Your task to perform on an android device: see tabs open on other devices in the chrome app Image 0: 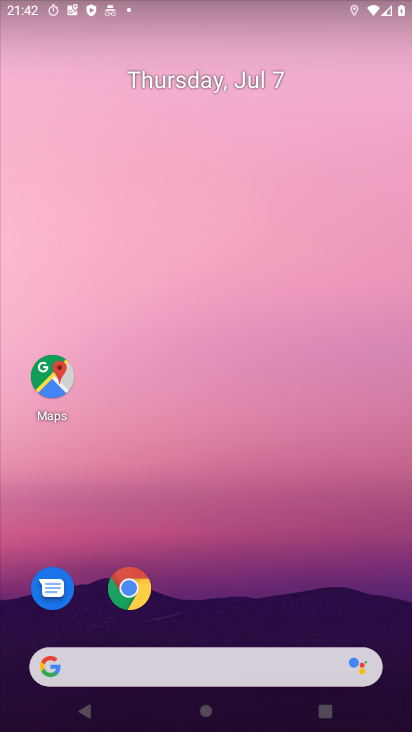
Step 0: drag from (259, 651) to (109, 237)
Your task to perform on an android device: see tabs open on other devices in the chrome app Image 1: 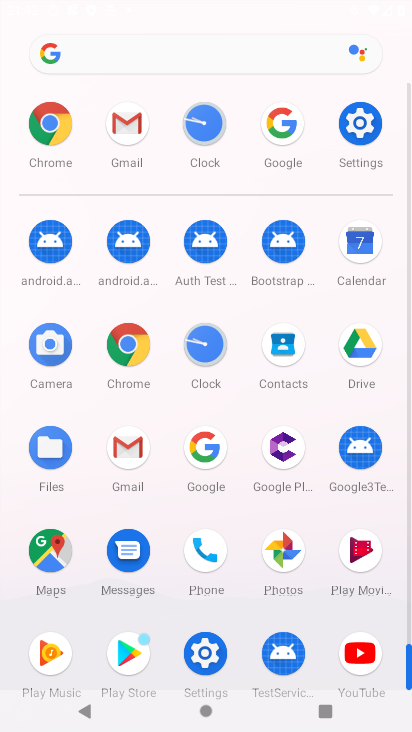
Step 1: click (53, 122)
Your task to perform on an android device: see tabs open on other devices in the chrome app Image 2: 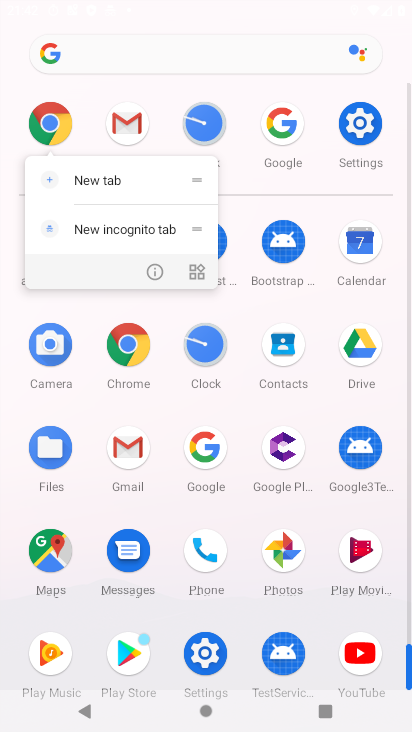
Step 2: click (129, 366)
Your task to perform on an android device: see tabs open on other devices in the chrome app Image 3: 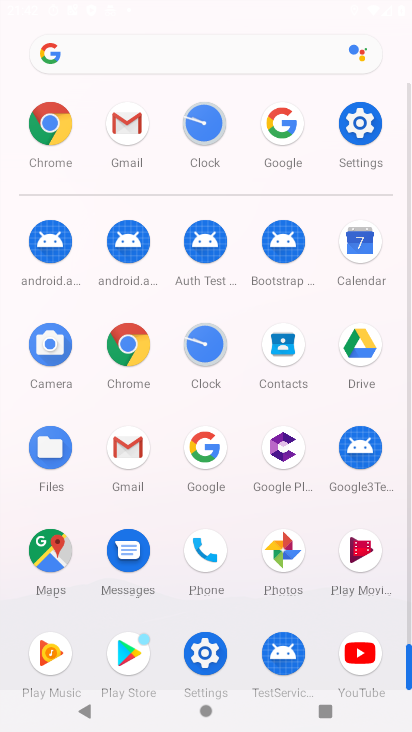
Step 3: click (130, 368)
Your task to perform on an android device: see tabs open on other devices in the chrome app Image 4: 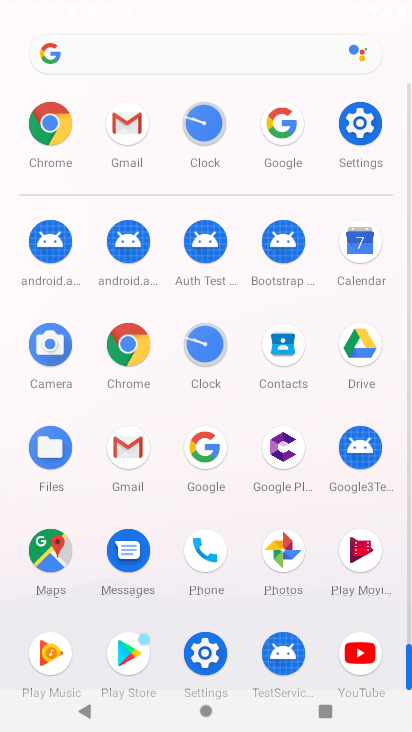
Step 4: click (138, 366)
Your task to perform on an android device: see tabs open on other devices in the chrome app Image 5: 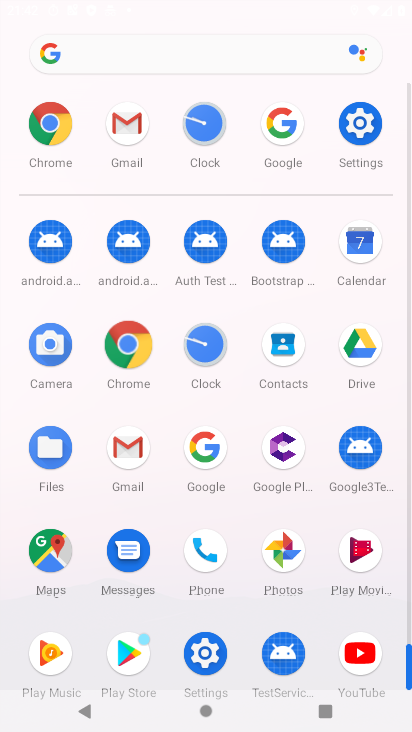
Step 5: click (145, 364)
Your task to perform on an android device: see tabs open on other devices in the chrome app Image 6: 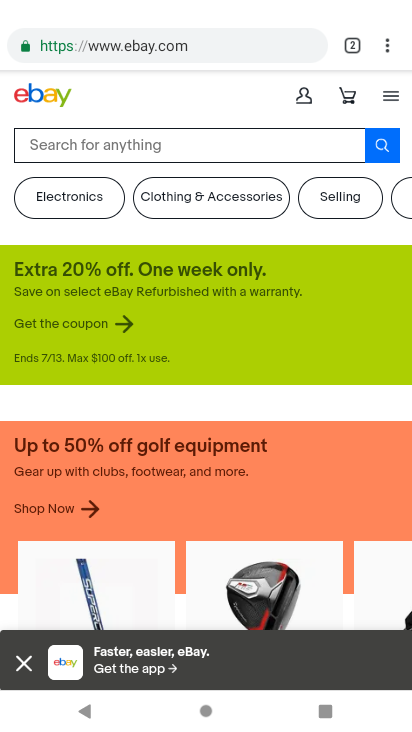
Step 6: drag from (376, 47) to (224, 217)
Your task to perform on an android device: see tabs open on other devices in the chrome app Image 7: 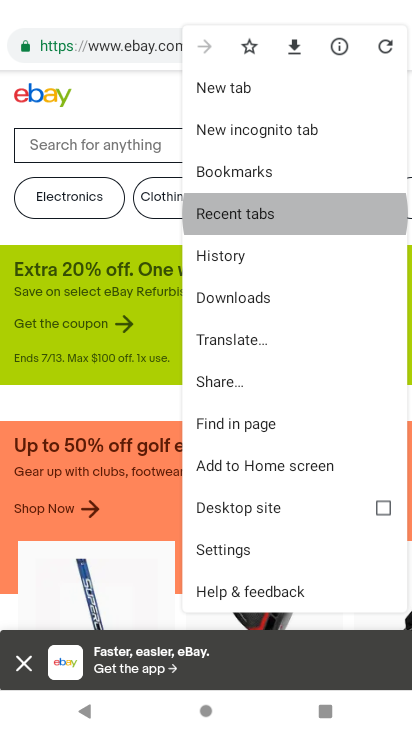
Step 7: click (224, 217)
Your task to perform on an android device: see tabs open on other devices in the chrome app Image 8: 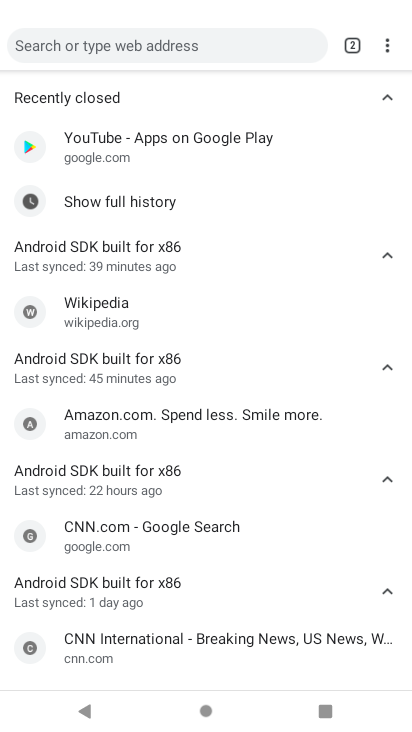
Step 8: click (228, 211)
Your task to perform on an android device: see tabs open on other devices in the chrome app Image 9: 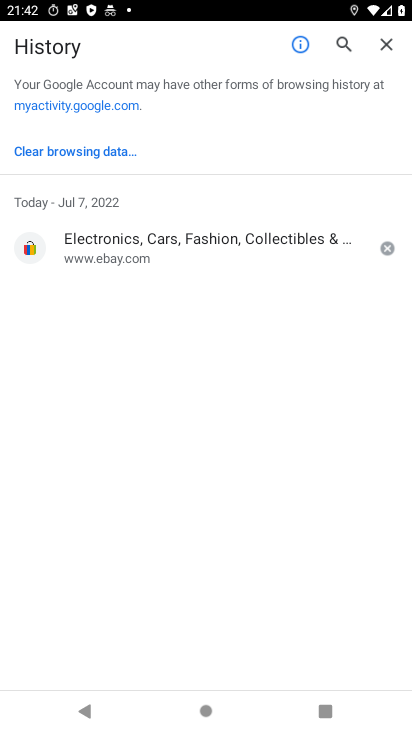
Step 9: task complete